Your task to perform on an android device: turn off notifications in google photos Image 0: 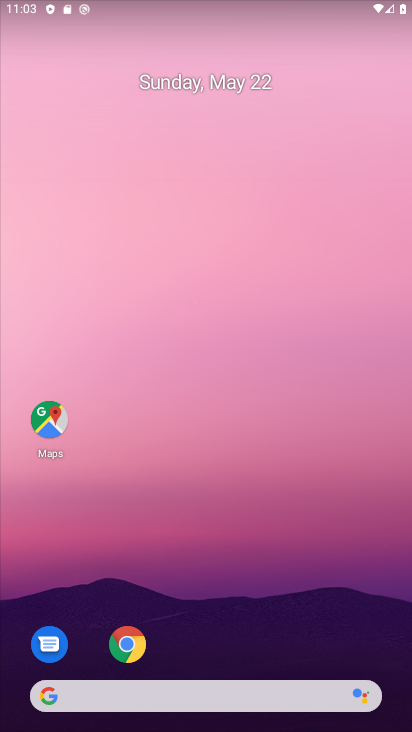
Step 0: drag from (307, 639) to (300, 30)
Your task to perform on an android device: turn off notifications in google photos Image 1: 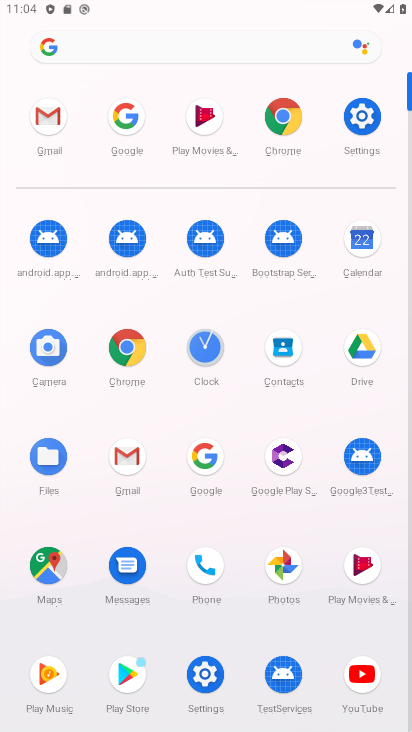
Step 1: click (292, 564)
Your task to perform on an android device: turn off notifications in google photos Image 2: 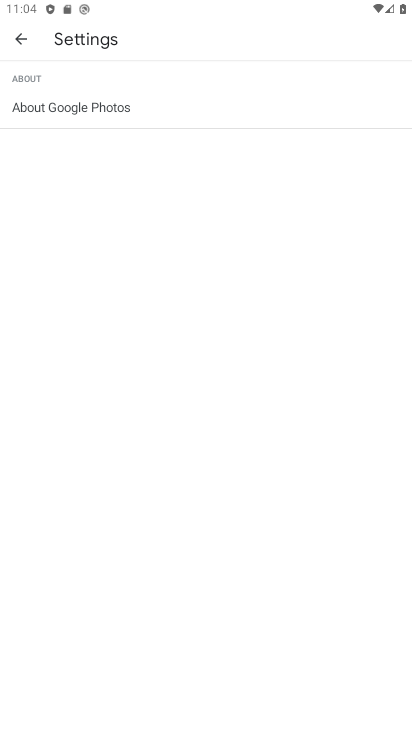
Step 2: press back button
Your task to perform on an android device: turn off notifications in google photos Image 3: 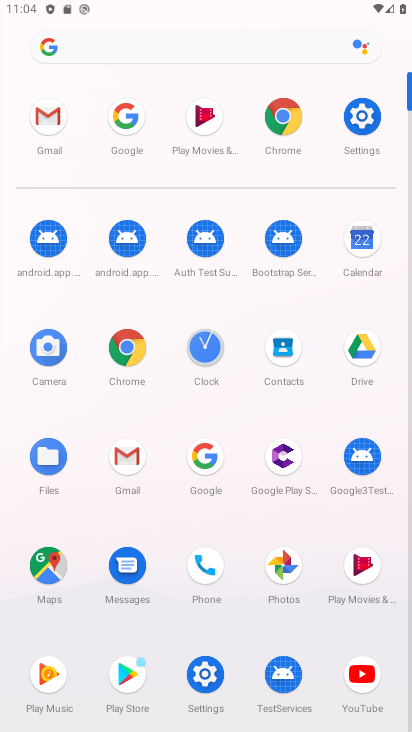
Step 3: click (274, 553)
Your task to perform on an android device: turn off notifications in google photos Image 4: 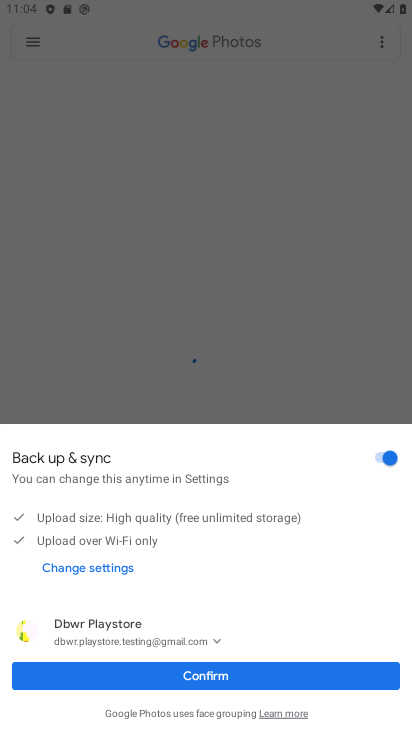
Step 4: click (218, 672)
Your task to perform on an android device: turn off notifications in google photos Image 5: 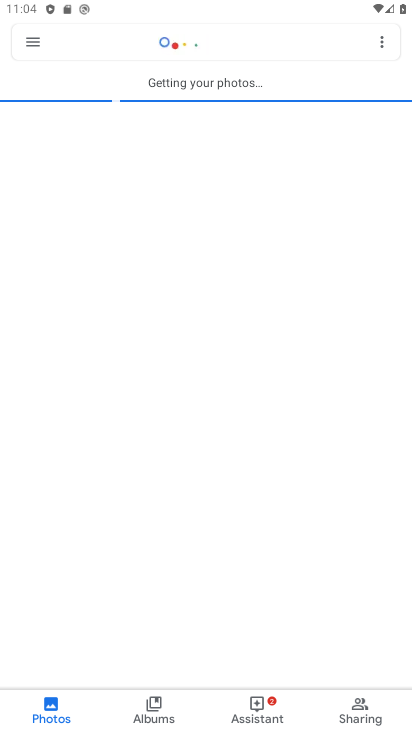
Step 5: click (29, 44)
Your task to perform on an android device: turn off notifications in google photos Image 6: 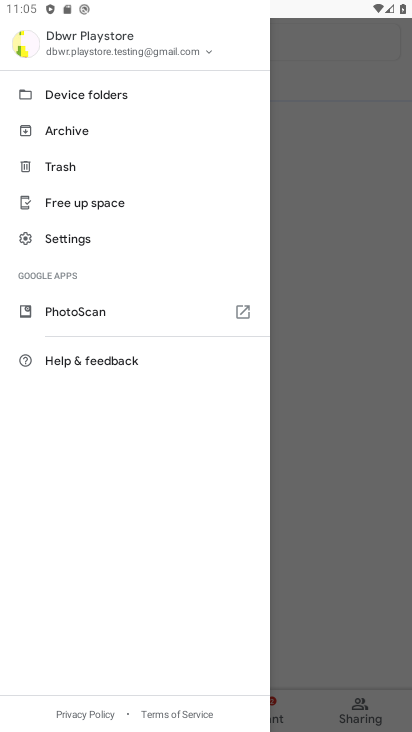
Step 6: click (77, 238)
Your task to perform on an android device: turn off notifications in google photos Image 7: 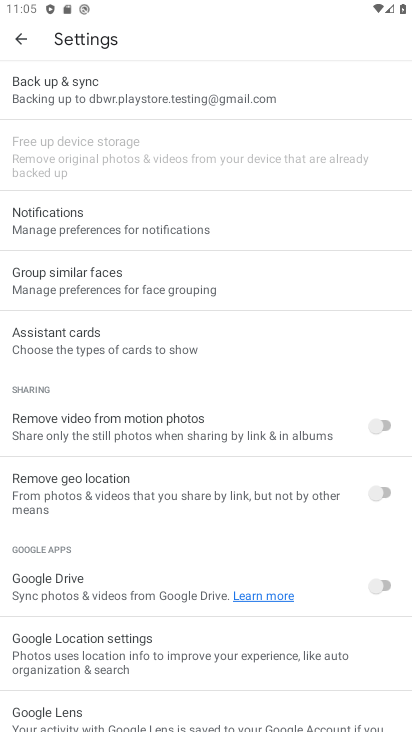
Step 7: click (129, 233)
Your task to perform on an android device: turn off notifications in google photos Image 8: 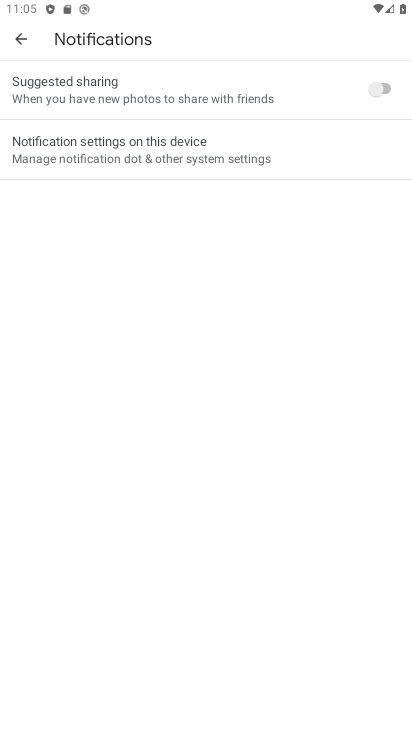
Step 8: task complete